Your task to perform on an android device: Search for sushi restaurants on Maps Image 0: 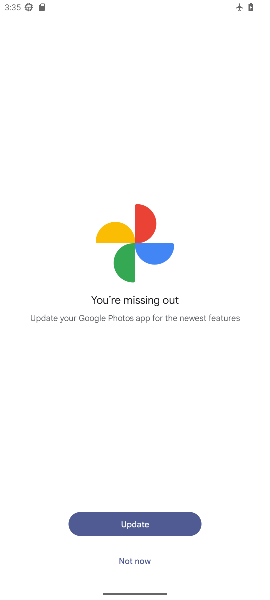
Step 0: press home button
Your task to perform on an android device: Search for sushi restaurants on Maps Image 1: 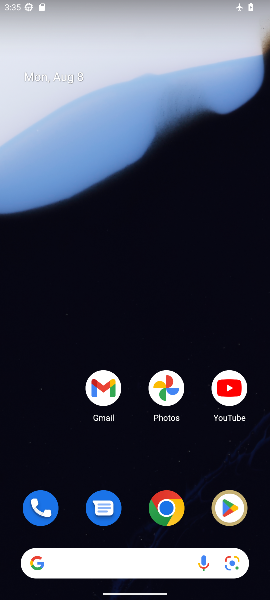
Step 1: drag from (102, 451) to (156, 13)
Your task to perform on an android device: Search for sushi restaurants on Maps Image 2: 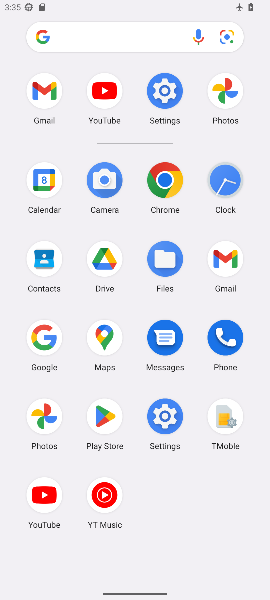
Step 2: click (102, 337)
Your task to perform on an android device: Search for sushi restaurants on Maps Image 3: 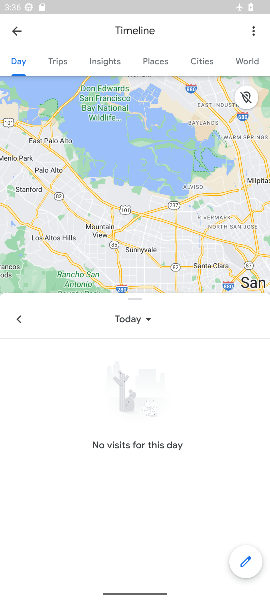
Step 3: click (18, 25)
Your task to perform on an android device: Search for sushi restaurants on Maps Image 4: 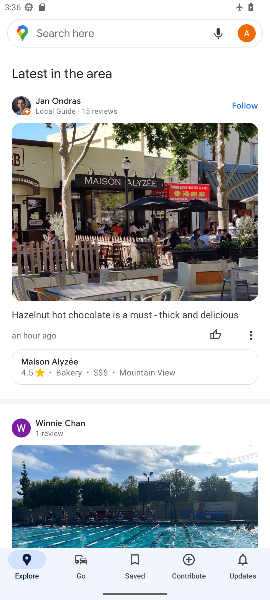
Step 4: click (64, 32)
Your task to perform on an android device: Search for sushi restaurants on Maps Image 5: 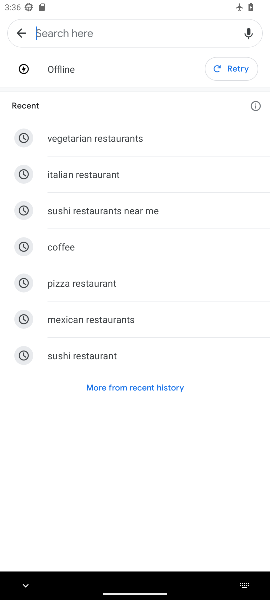
Step 5: click (84, 353)
Your task to perform on an android device: Search for sushi restaurants on Maps Image 6: 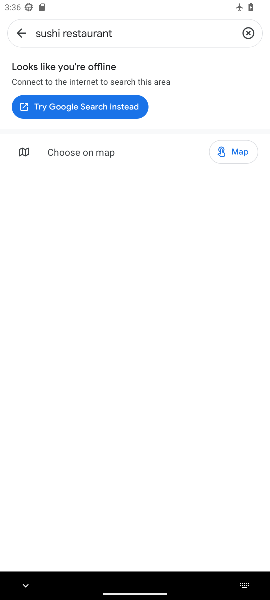
Step 6: task complete